Your task to perform on an android device: turn on wifi Image 0: 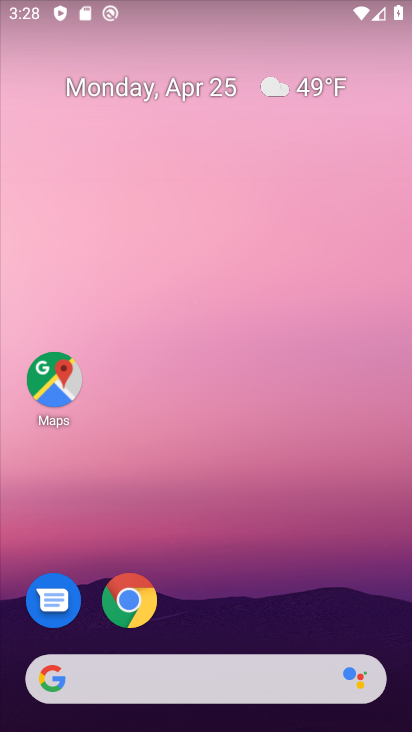
Step 0: drag from (268, 588) to (252, 14)
Your task to perform on an android device: turn on wifi Image 1: 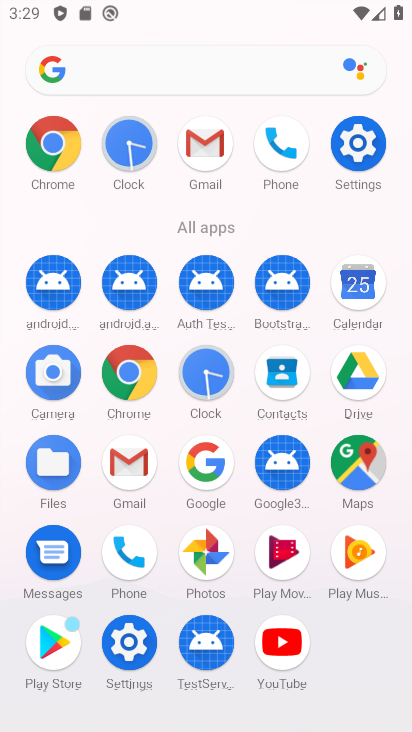
Step 1: click (359, 136)
Your task to perform on an android device: turn on wifi Image 2: 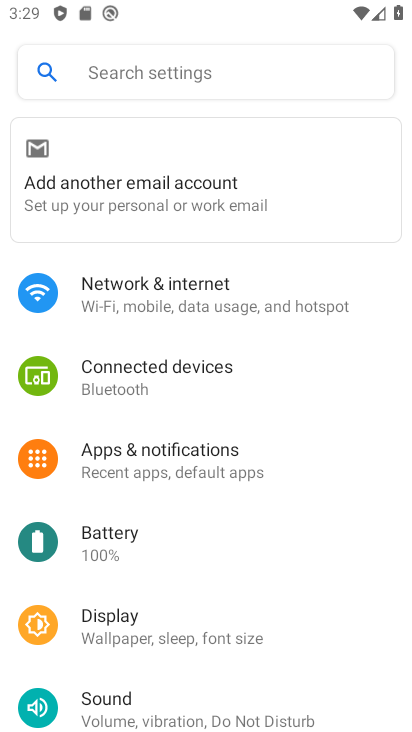
Step 2: click (257, 280)
Your task to perform on an android device: turn on wifi Image 3: 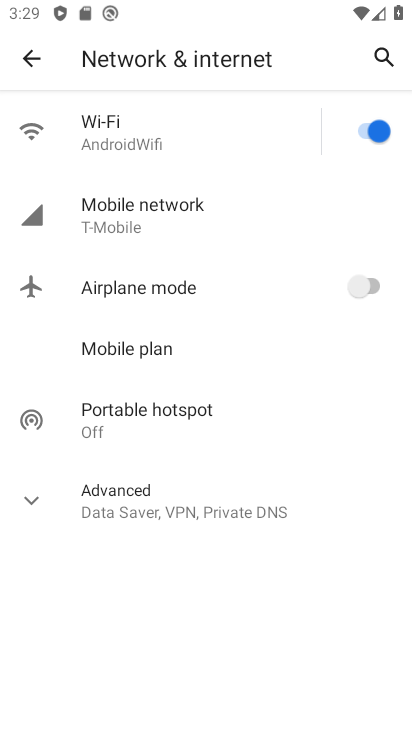
Step 3: task complete